Your task to perform on an android device: see tabs open on other devices in the chrome app Image 0: 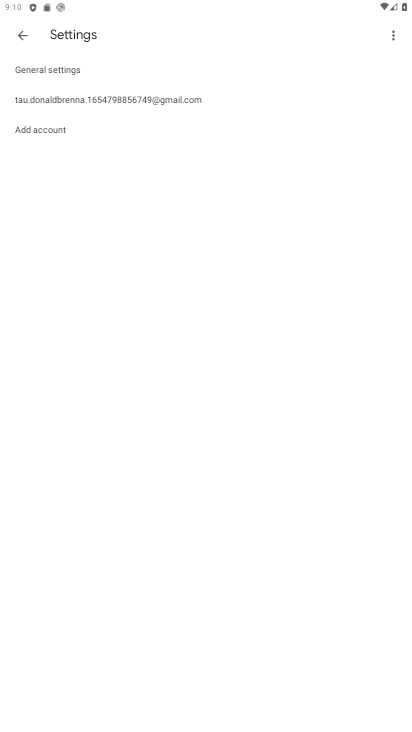
Step 0: press home button
Your task to perform on an android device: see tabs open on other devices in the chrome app Image 1: 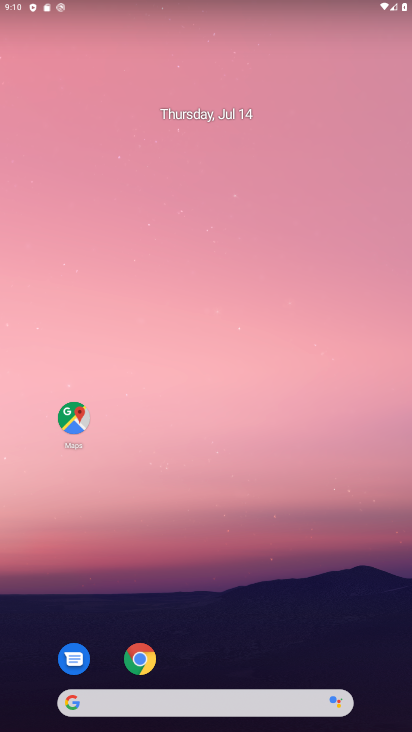
Step 1: click (142, 658)
Your task to perform on an android device: see tabs open on other devices in the chrome app Image 2: 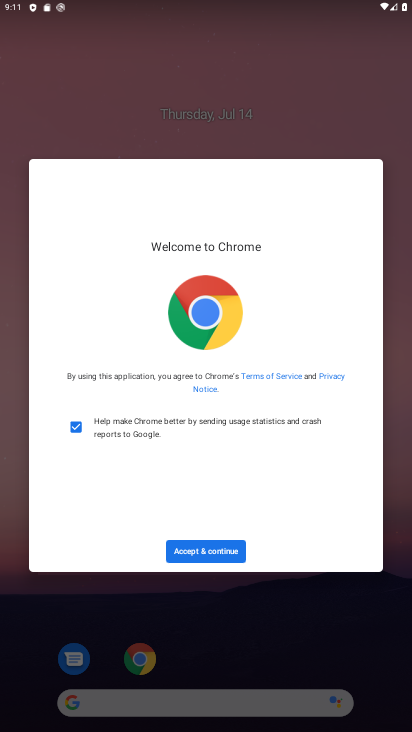
Step 2: click (210, 545)
Your task to perform on an android device: see tabs open on other devices in the chrome app Image 3: 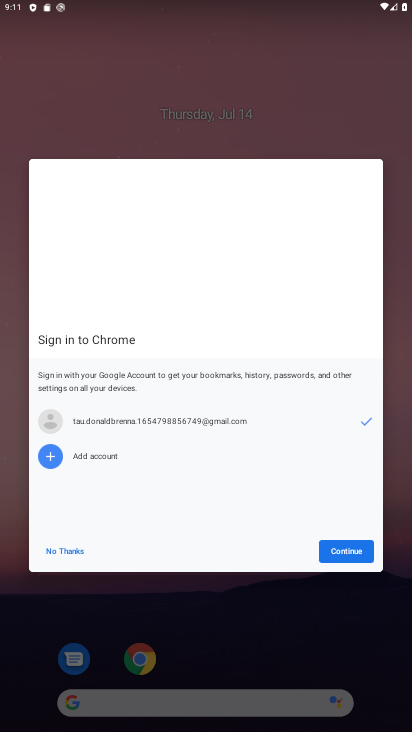
Step 3: click (336, 542)
Your task to perform on an android device: see tabs open on other devices in the chrome app Image 4: 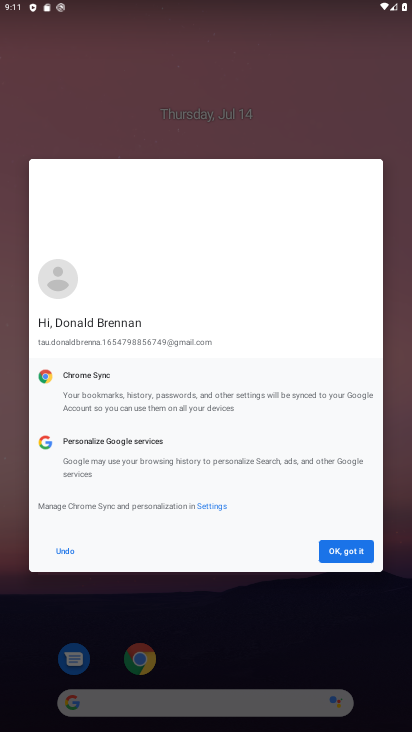
Step 4: click (336, 542)
Your task to perform on an android device: see tabs open on other devices in the chrome app Image 5: 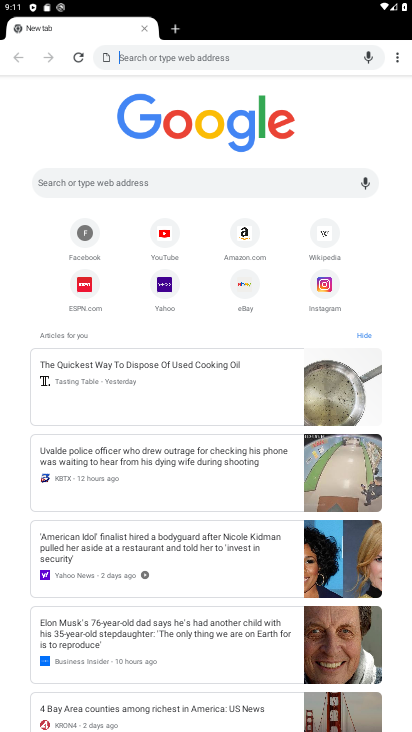
Step 5: click (397, 65)
Your task to perform on an android device: see tabs open on other devices in the chrome app Image 6: 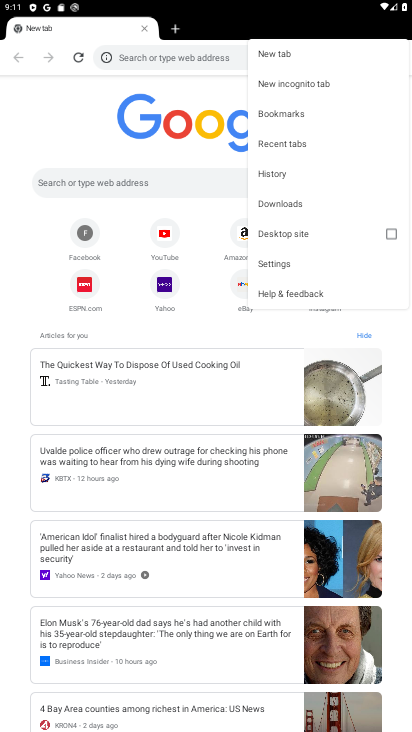
Step 6: click (301, 134)
Your task to perform on an android device: see tabs open on other devices in the chrome app Image 7: 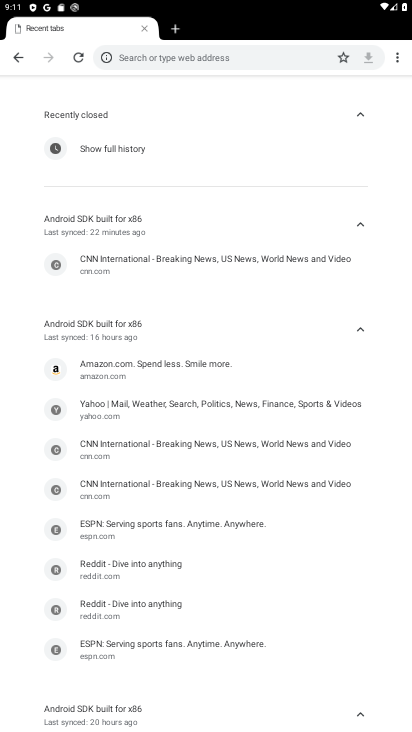
Step 7: task complete